Your task to perform on an android device: Open calendar and show me the first week of next month Image 0: 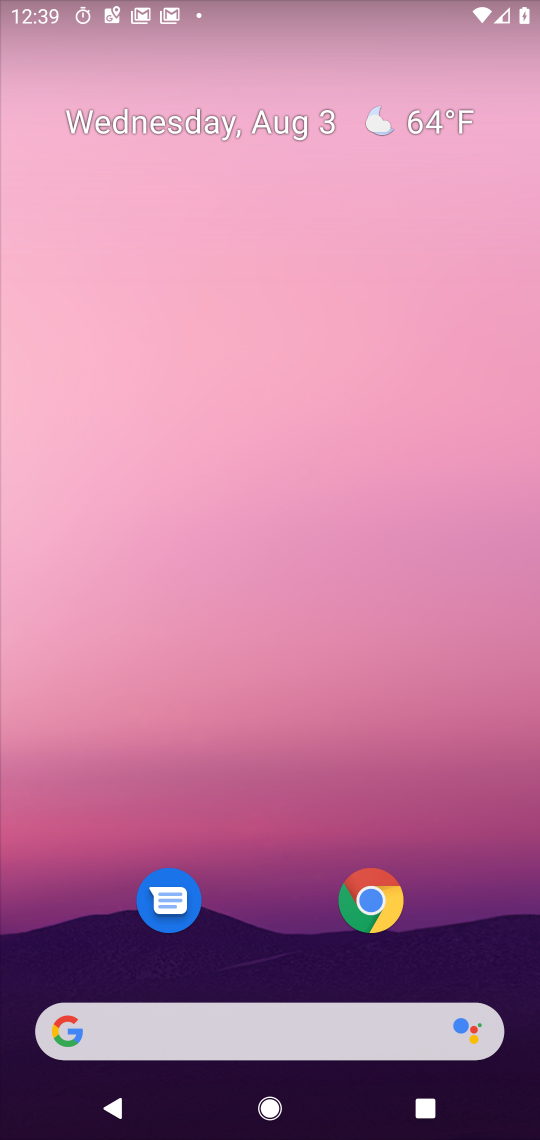
Step 0: drag from (308, 448) to (324, 97)
Your task to perform on an android device: Open calendar and show me the first week of next month Image 1: 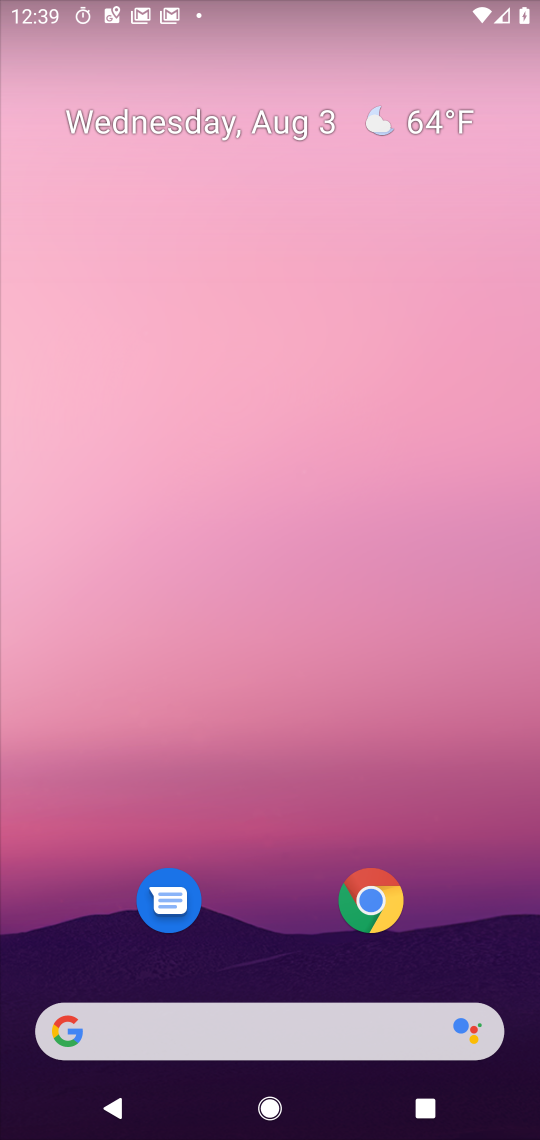
Step 1: drag from (251, 949) to (325, 208)
Your task to perform on an android device: Open calendar and show me the first week of next month Image 2: 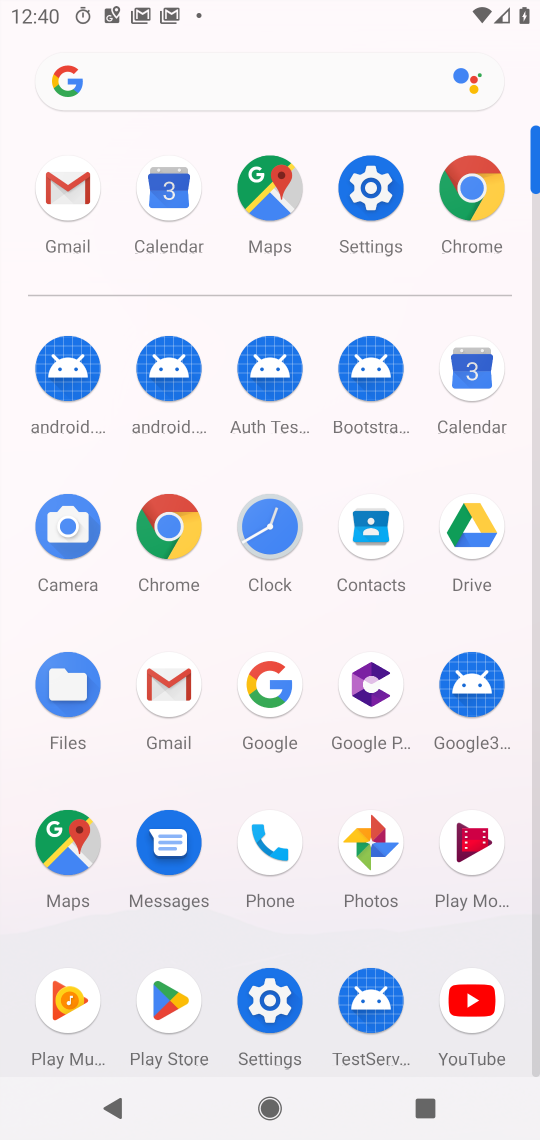
Step 2: click (472, 359)
Your task to perform on an android device: Open calendar and show me the first week of next month Image 3: 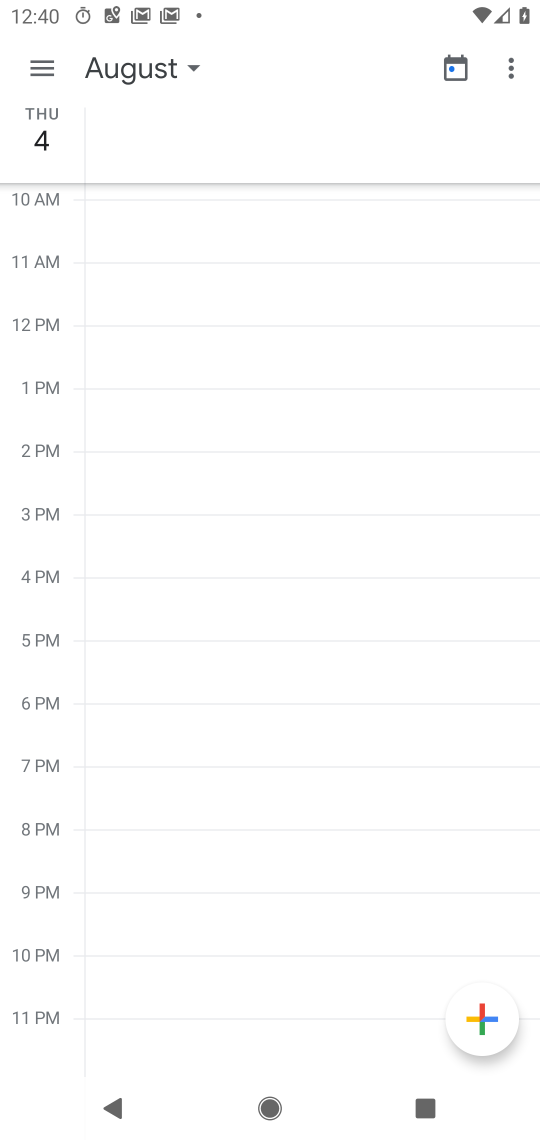
Step 3: click (111, 61)
Your task to perform on an android device: Open calendar and show me the first week of next month Image 4: 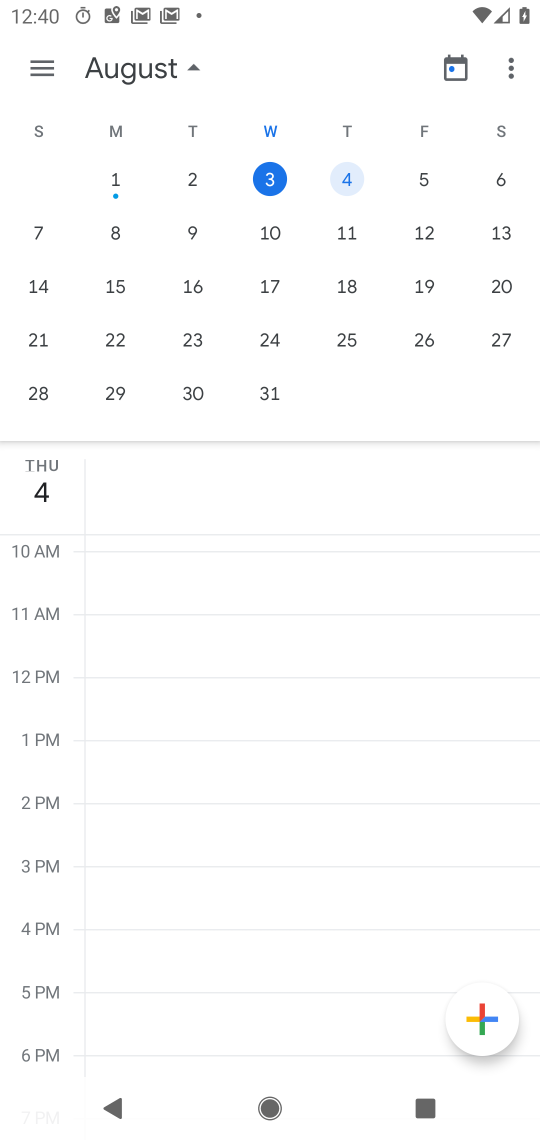
Step 4: drag from (467, 307) to (7, 266)
Your task to perform on an android device: Open calendar and show me the first week of next month Image 5: 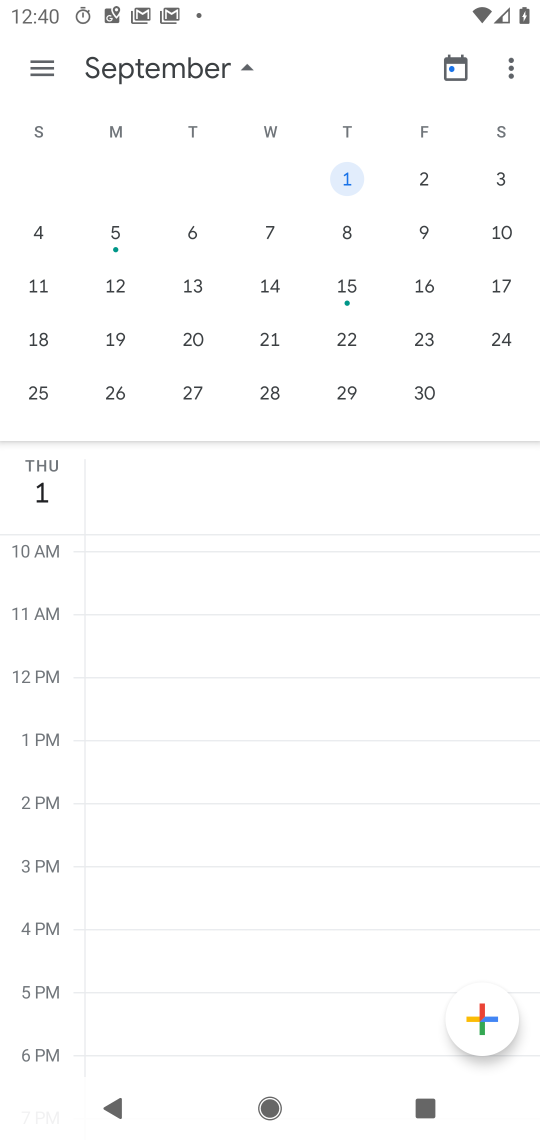
Step 5: click (120, 228)
Your task to perform on an android device: Open calendar and show me the first week of next month Image 6: 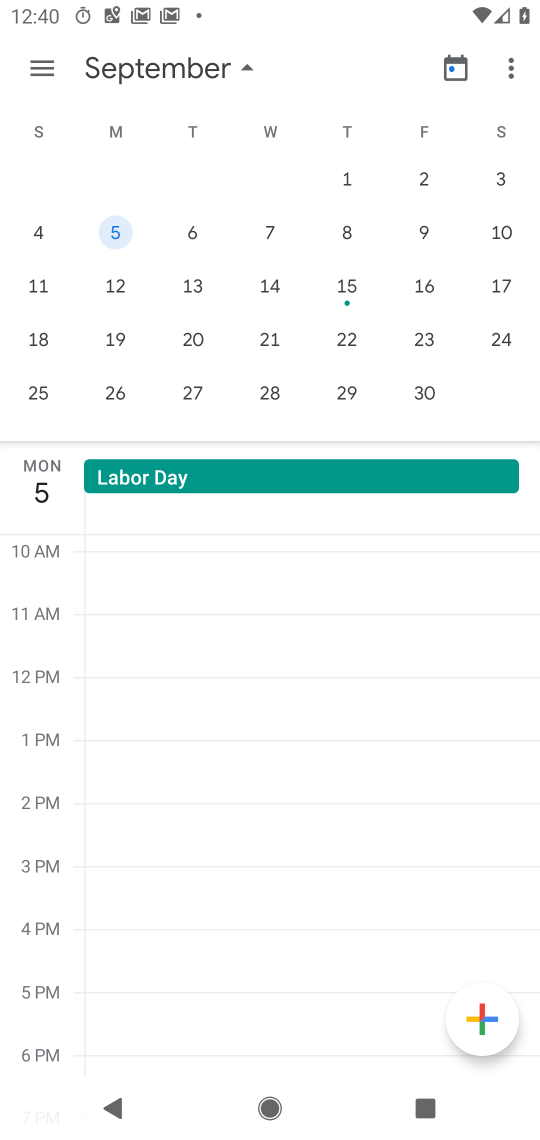
Step 6: click (34, 59)
Your task to perform on an android device: Open calendar and show me the first week of next month Image 7: 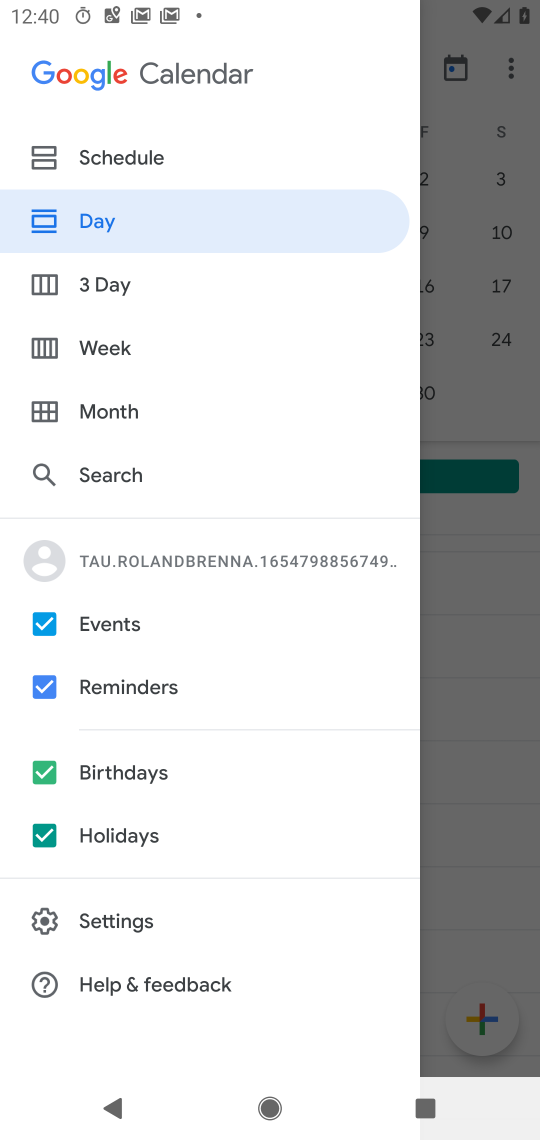
Step 7: click (86, 344)
Your task to perform on an android device: Open calendar and show me the first week of next month Image 8: 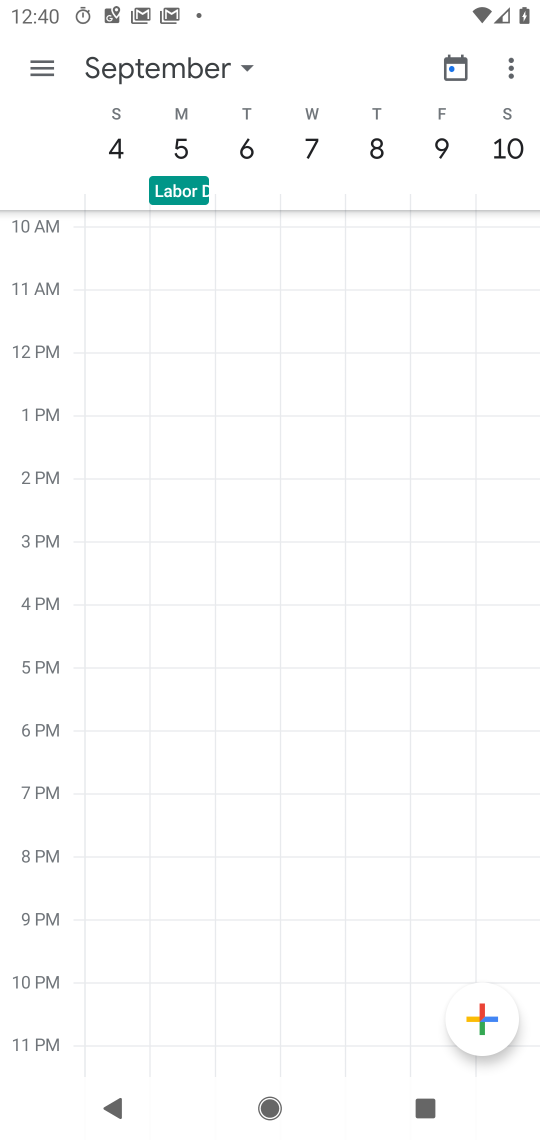
Step 8: task complete